Your task to perform on an android device: change notification settings in the gmail app Image 0: 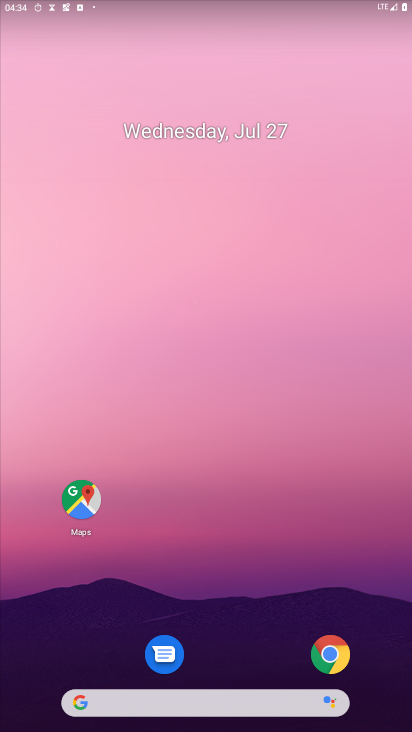
Step 0: press home button
Your task to perform on an android device: change notification settings in the gmail app Image 1: 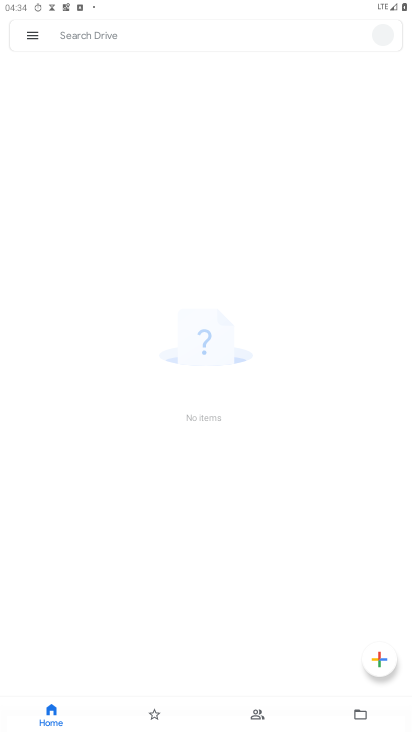
Step 1: drag from (241, 616) to (235, 166)
Your task to perform on an android device: change notification settings in the gmail app Image 2: 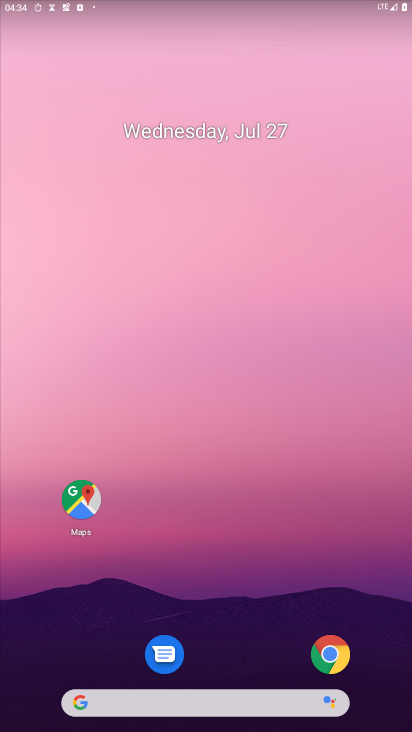
Step 2: drag from (278, 716) to (365, 172)
Your task to perform on an android device: change notification settings in the gmail app Image 3: 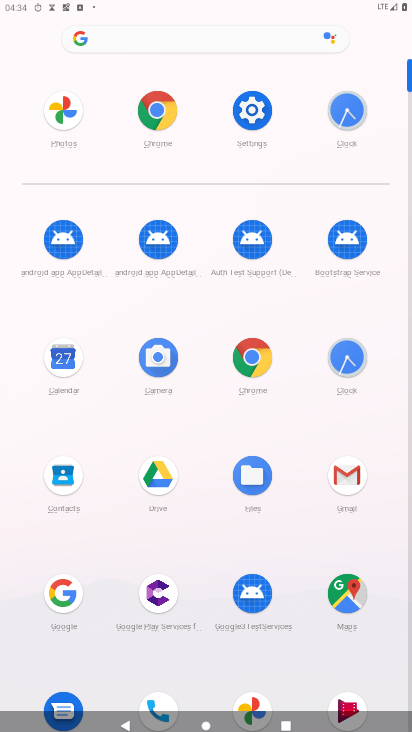
Step 3: click (357, 476)
Your task to perform on an android device: change notification settings in the gmail app Image 4: 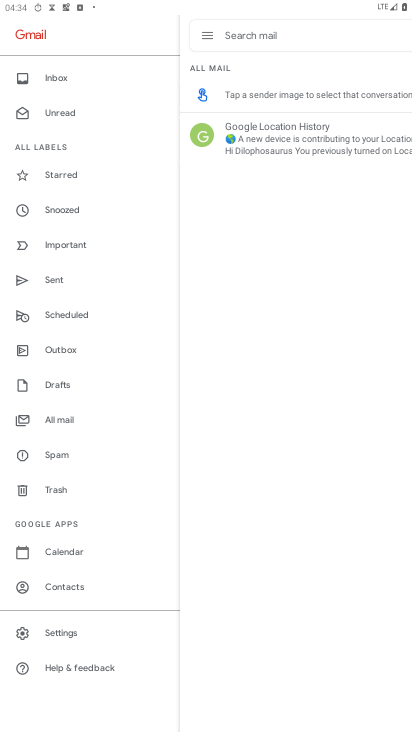
Step 4: click (66, 629)
Your task to perform on an android device: change notification settings in the gmail app Image 5: 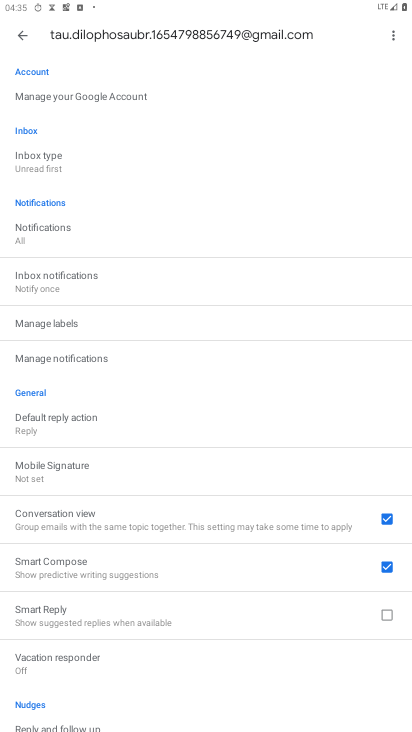
Step 5: click (77, 346)
Your task to perform on an android device: change notification settings in the gmail app Image 6: 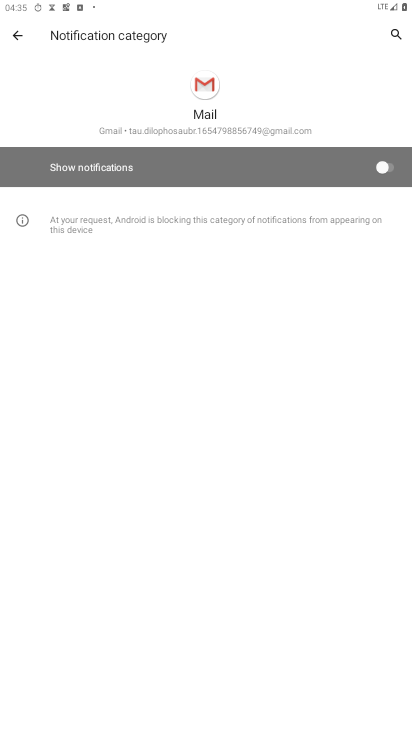
Step 6: click (384, 164)
Your task to perform on an android device: change notification settings in the gmail app Image 7: 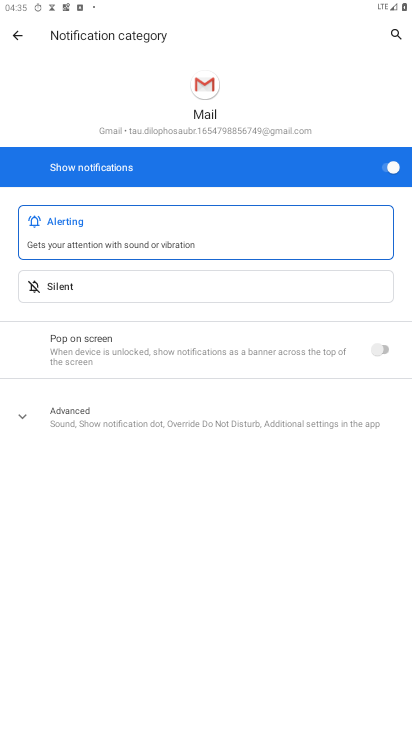
Step 7: task complete